Your task to perform on an android device: turn off improve location accuracy Image 0: 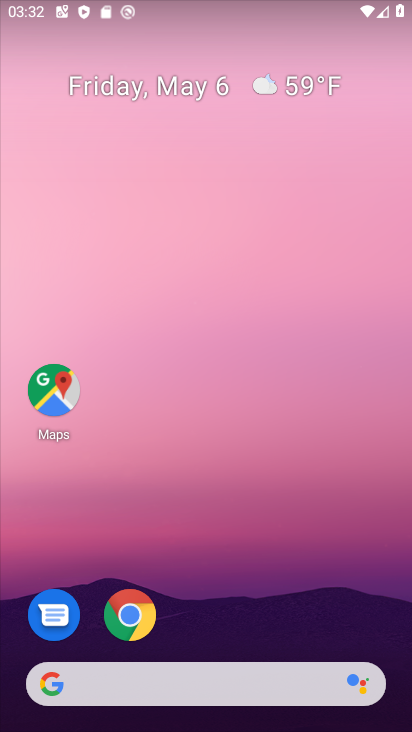
Step 0: drag from (284, 654) to (209, 104)
Your task to perform on an android device: turn off improve location accuracy Image 1: 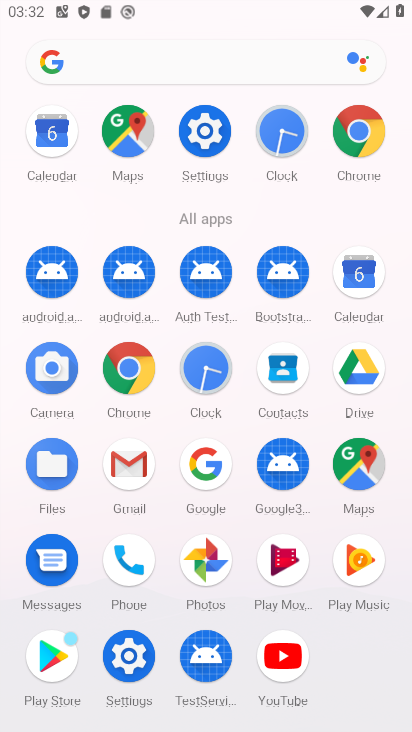
Step 1: click (207, 139)
Your task to perform on an android device: turn off improve location accuracy Image 2: 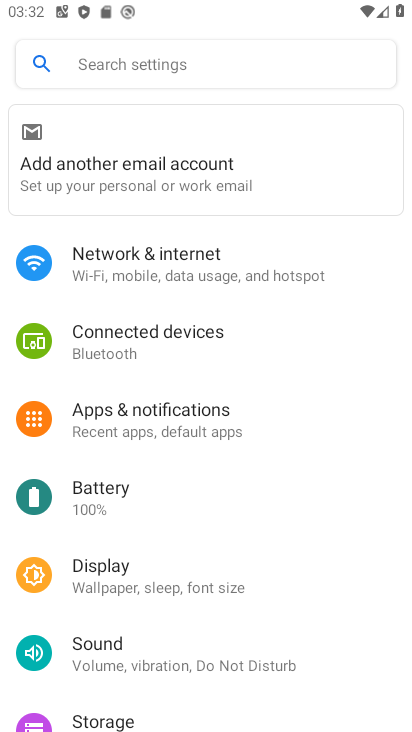
Step 2: drag from (183, 643) to (75, 186)
Your task to perform on an android device: turn off improve location accuracy Image 3: 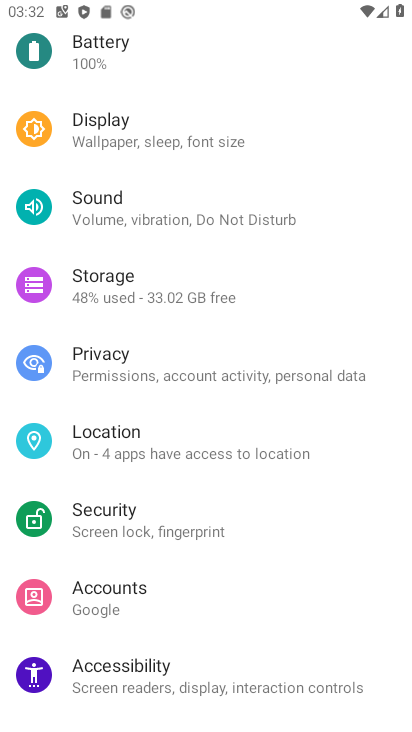
Step 3: click (107, 445)
Your task to perform on an android device: turn off improve location accuracy Image 4: 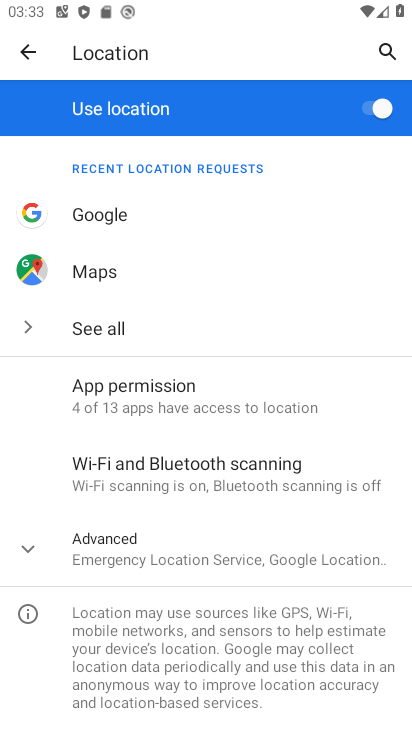
Step 4: click (144, 550)
Your task to perform on an android device: turn off improve location accuracy Image 5: 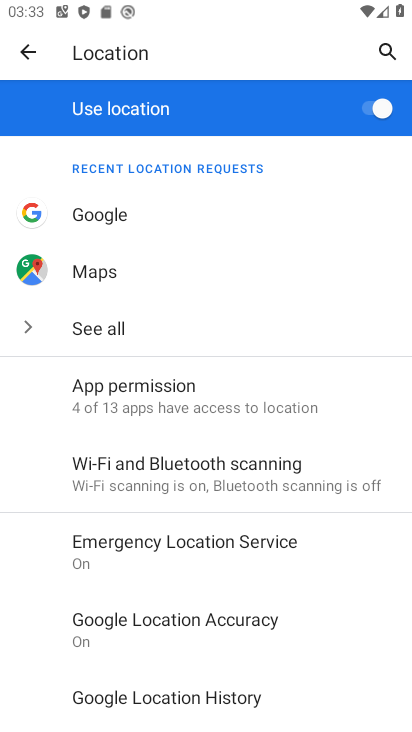
Step 5: click (149, 613)
Your task to perform on an android device: turn off improve location accuracy Image 6: 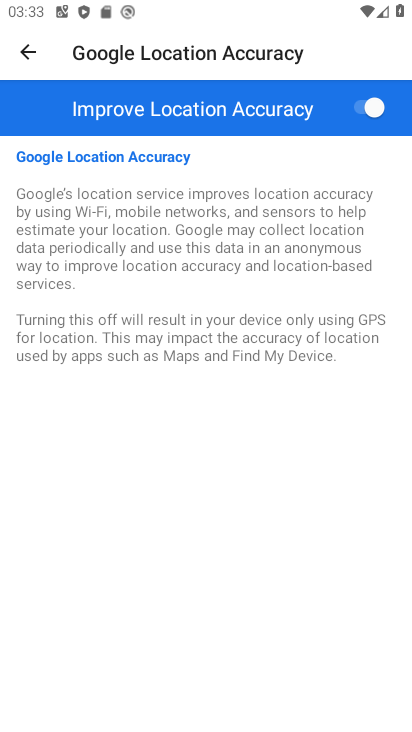
Step 6: click (380, 99)
Your task to perform on an android device: turn off improve location accuracy Image 7: 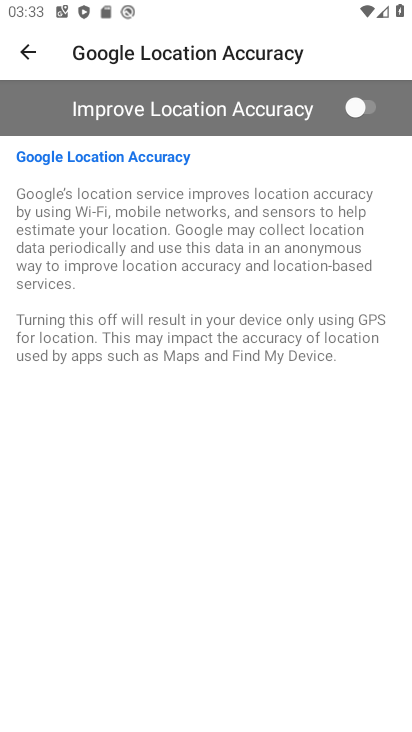
Step 7: task complete